Your task to perform on an android device: open sync settings in chrome Image 0: 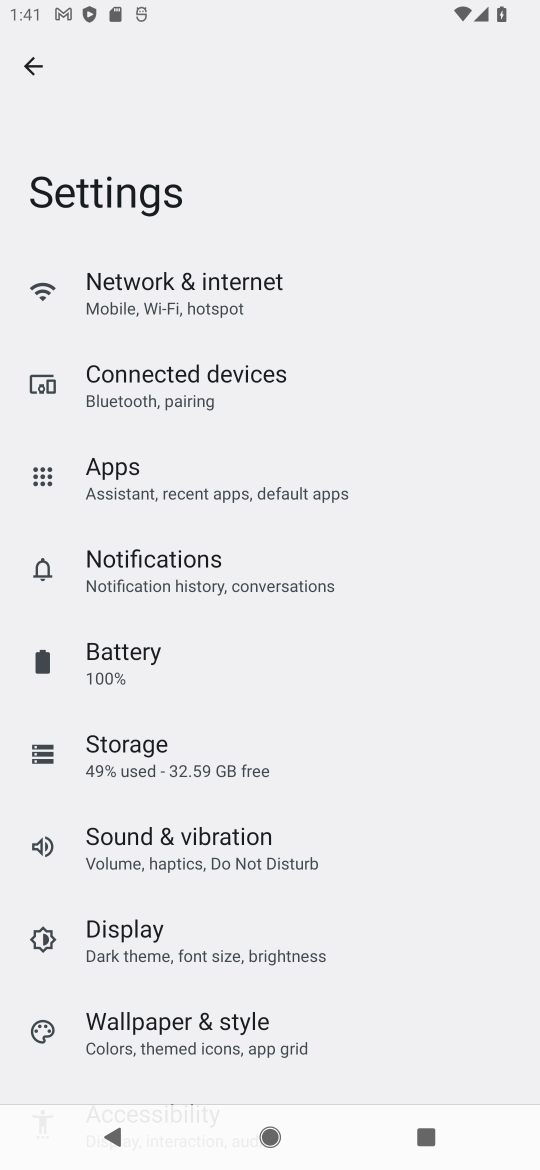
Step 0: press home button
Your task to perform on an android device: open sync settings in chrome Image 1: 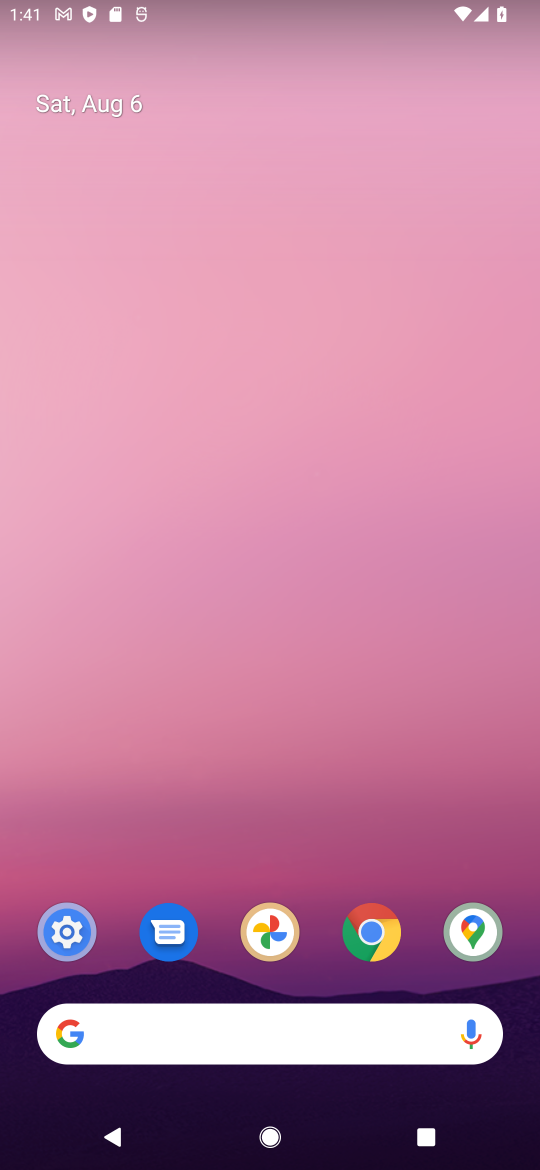
Step 1: click (371, 925)
Your task to perform on an android device: open sync settings in chrome Image 2: 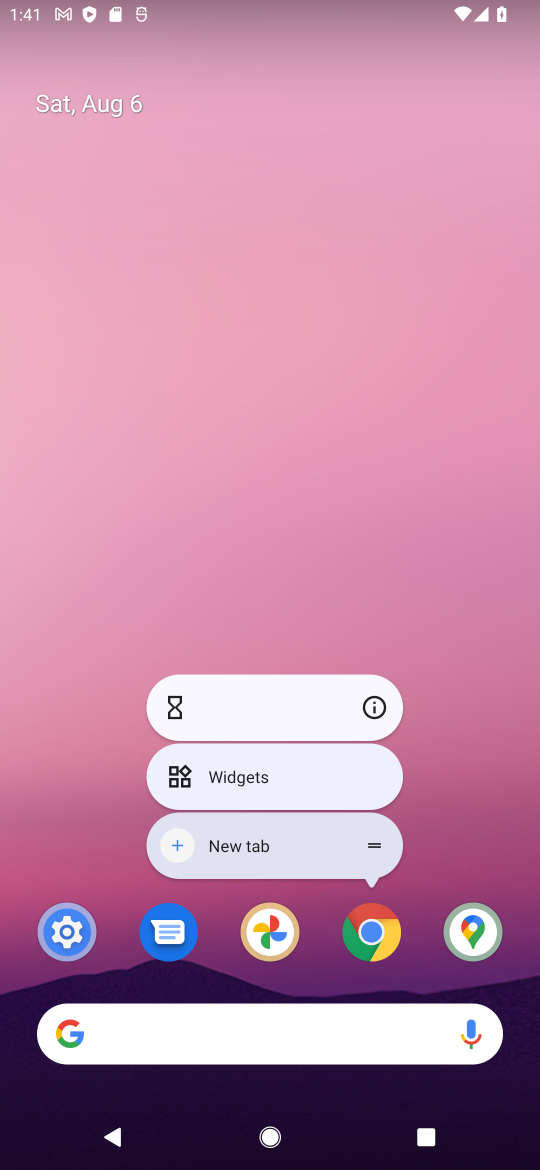
Step 2: drag from (437, 868) to (514, 53)
Your task to perform on an android device: open sync settings in chrome Image 3: 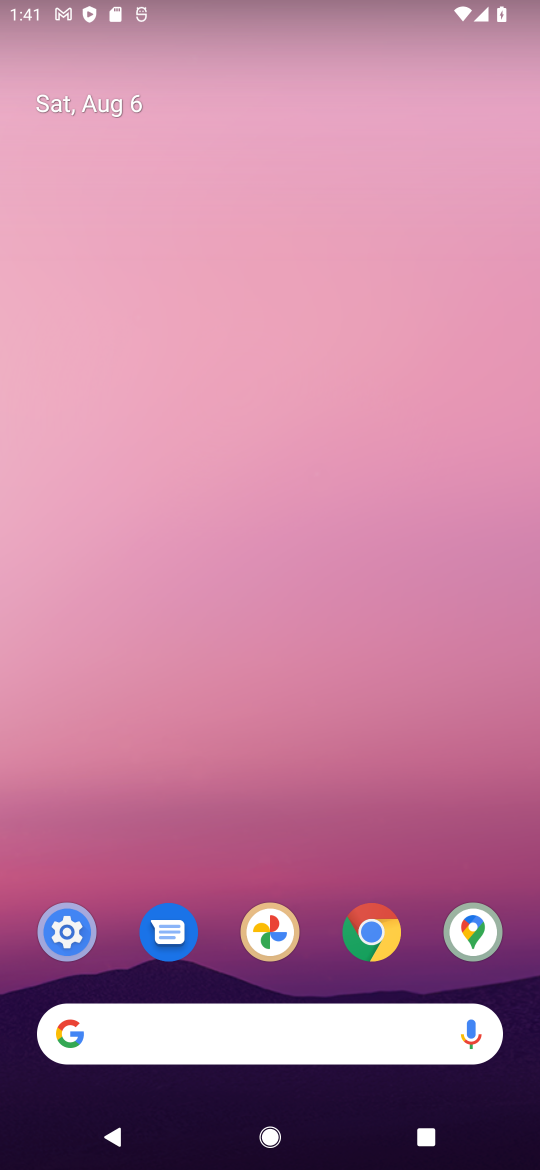
Step 3: drag from (323, 971) to (313, 252)
Your task to perform on an android device: open sync settings in chrome Image 4: 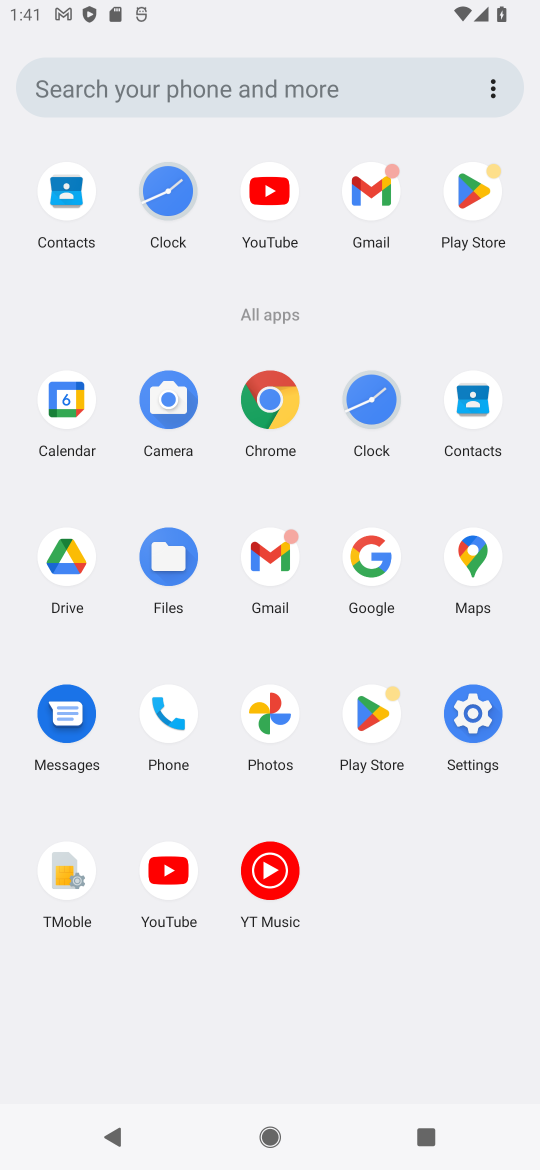
Step 4: click (281, 391)
Your task to perform on an android device: open sync settings in chrome Image 5: 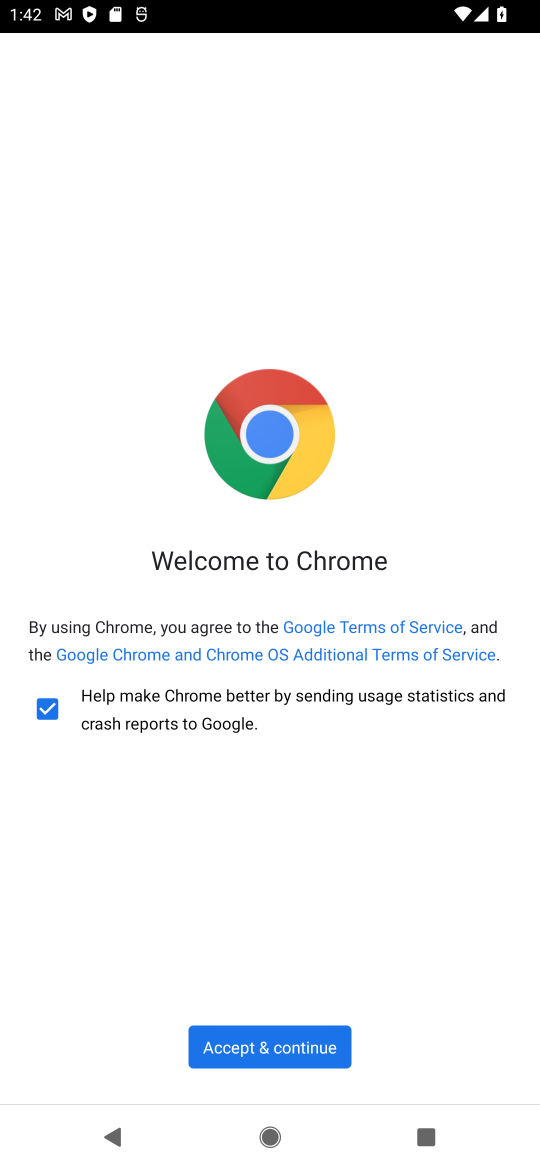
Step 5: click (254, 1038)
Your task to perform on an android device: open sync settings in chrome Image 6: 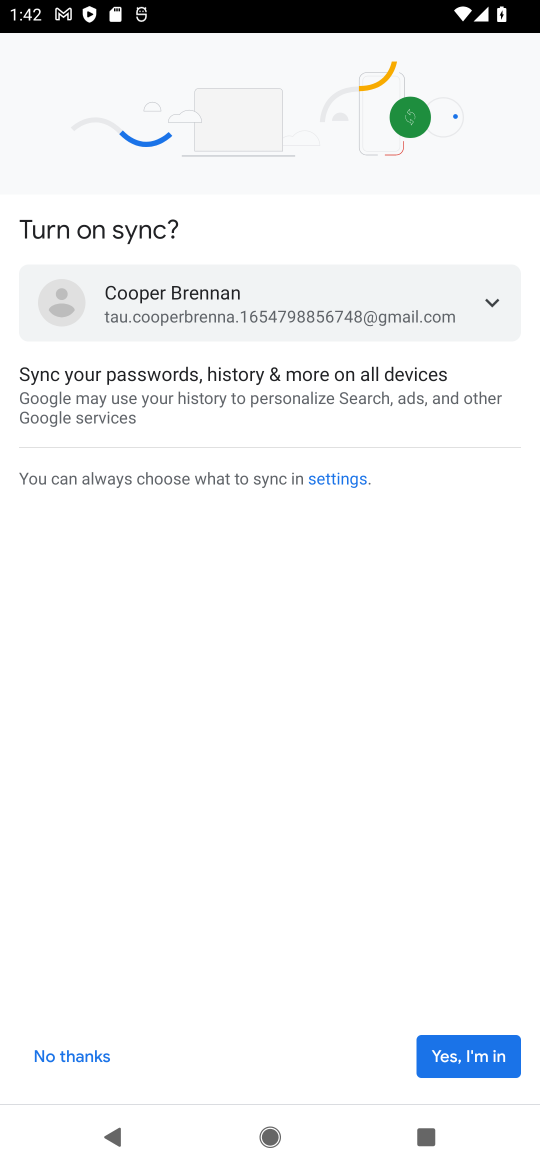
Step 6: click (455, 1050)
Your task to perform on an android device: open sync settings in chrome Image 7: 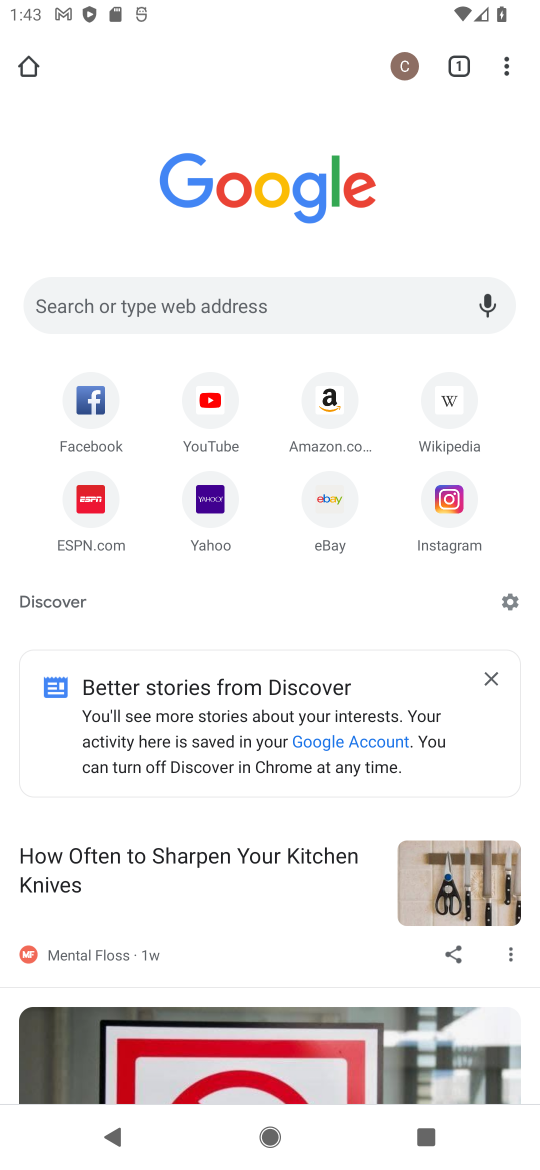
Step 7: click (504, 61)
Your task to perform on an android device: open sync settings in chrome Image 8: 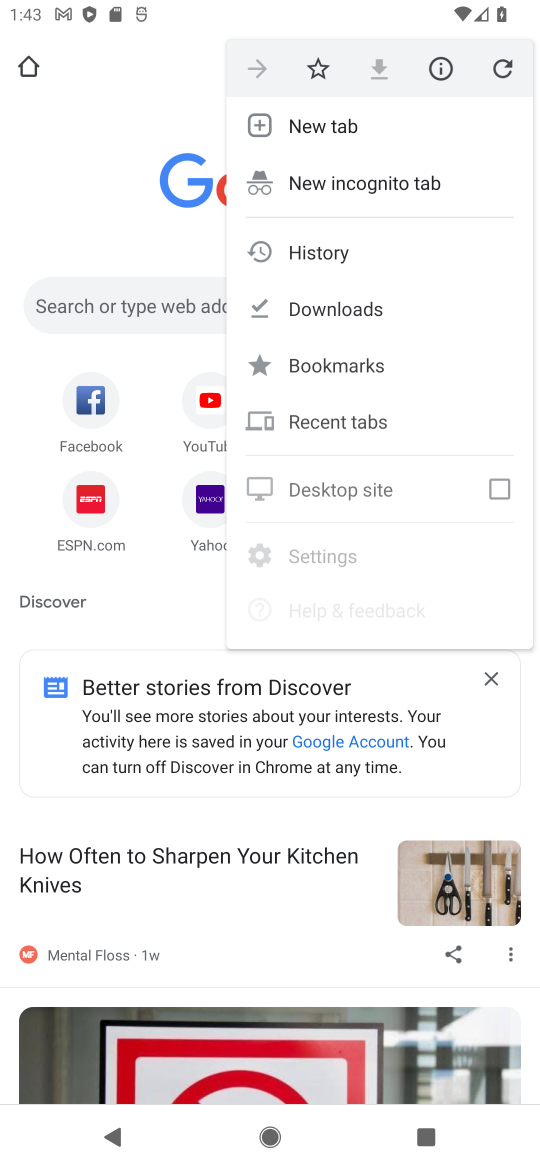
Step 8: drag from (504, 61) to (327, 569)
Your task to perform on an android device: open sync settings in chrome Image 9: 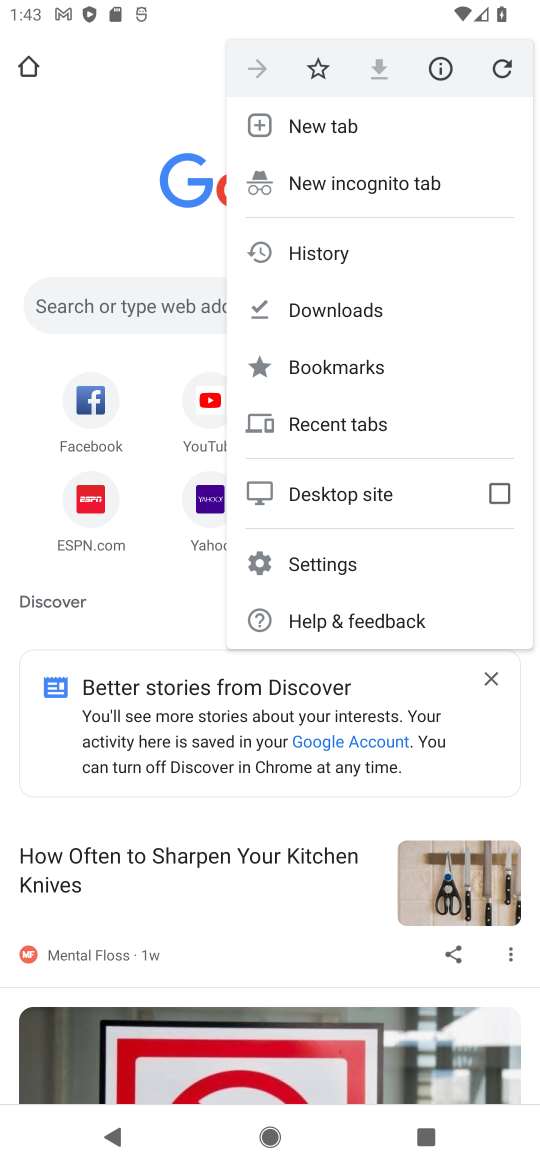
Step 9: click (327, 558)
Your task to perform on an android device: open sync settings in chrome Image 10: 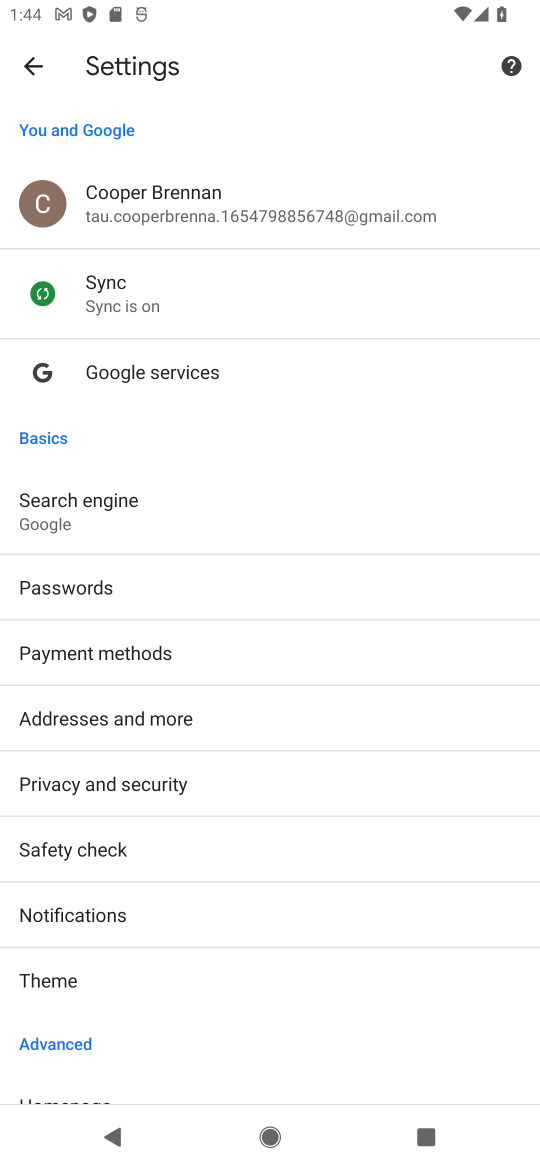
Step 10: click (90, 295)
Your task to perform on an android device: open sync settings in chrome Image 11: 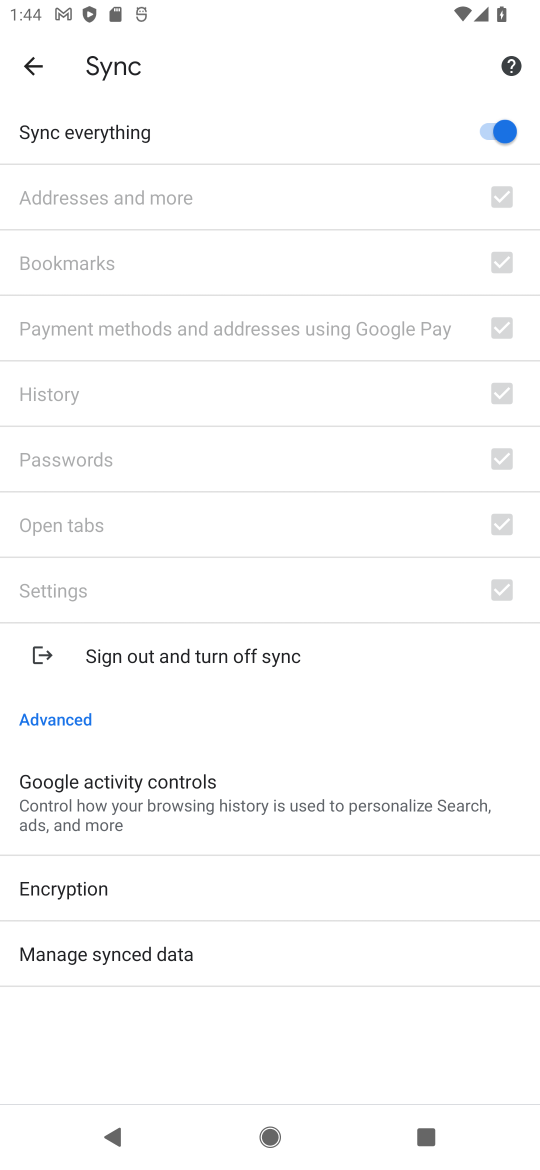
Step 11: task complete